Your task to perform on an android device: delete a single message in the gmail app Image 0: 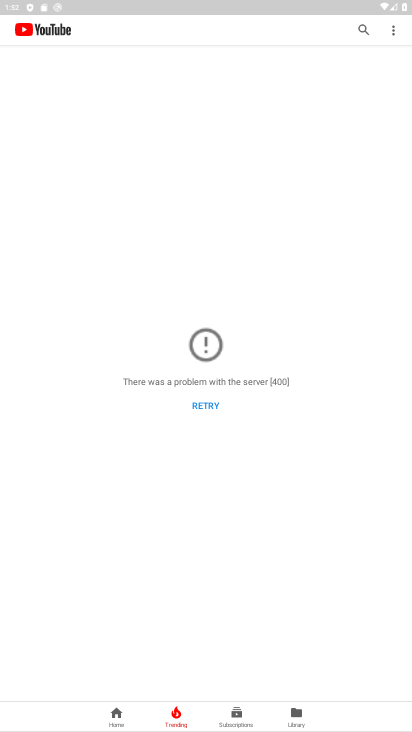
Step 0: press home button
Your task to perform on an android device: delete a single message in the gmail app Image 1: 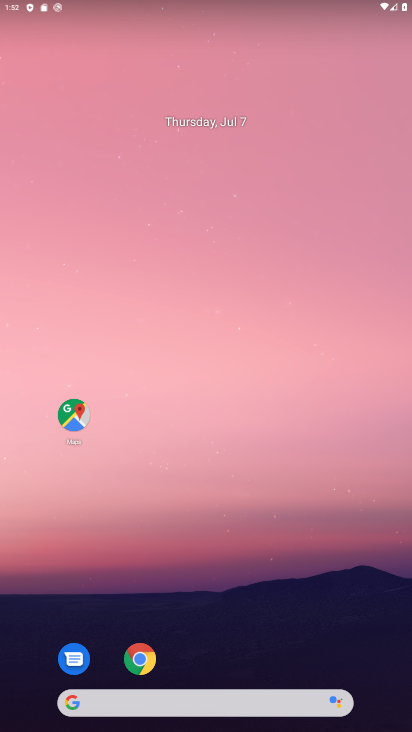
Step 1: drag from (326, 612) to (342, 117)
Your task to perform on an android device: delete a single message in the gmail app Image 2: 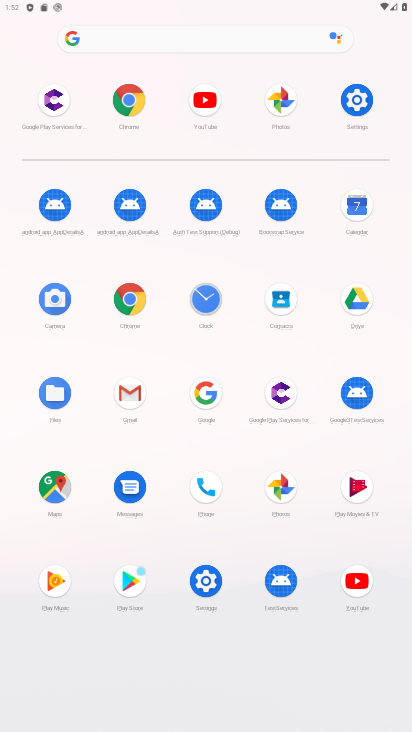
Step 2: click (131, 394)
Your task to perform on an android device: delete a single message in the gmail app Image 3: 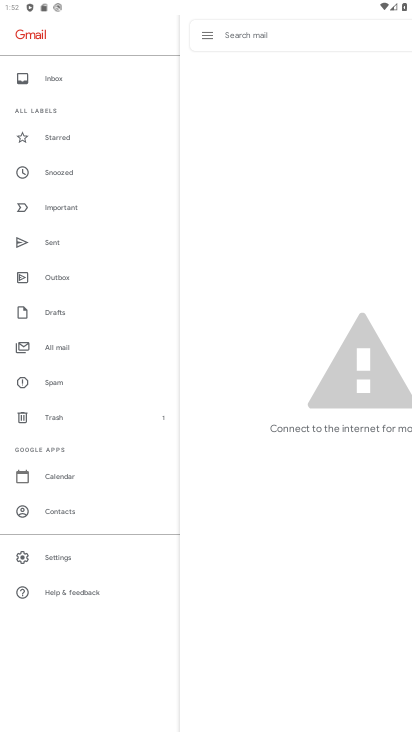
Step 3: click (70, 343)
Your task to perform on an android device: delete a single message in the gmail app Image 4: 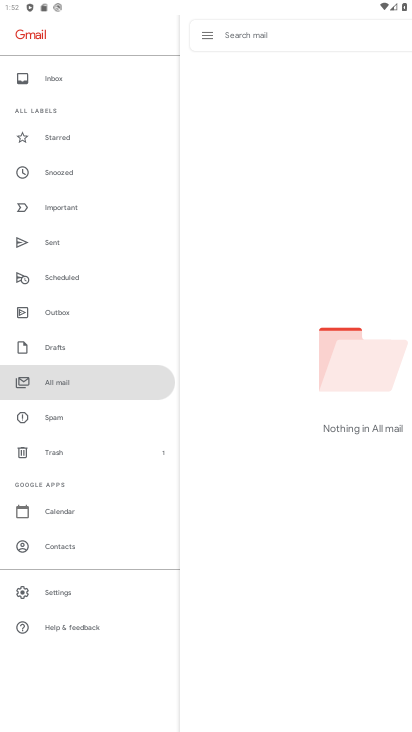
Step 4: task complete